Your task to perform on an android device: Is it going to rain this weekend? Image 0: 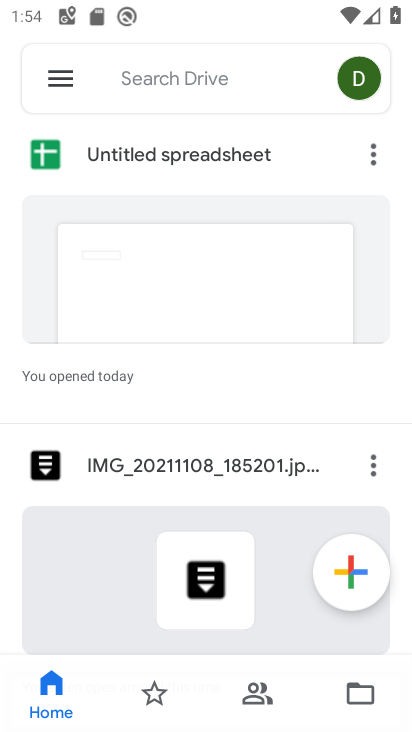
Step 0: press home button
Your task to perform on an android device: Is it going to rain this weekend? Image 1: 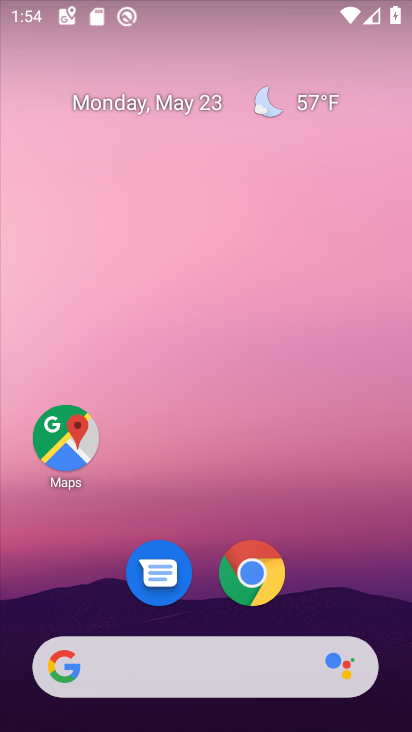
Step 1: drag from (313, 568) to (223, 24)
Your task to perform on an android device: Is it going to rain this weekend? Image 2: 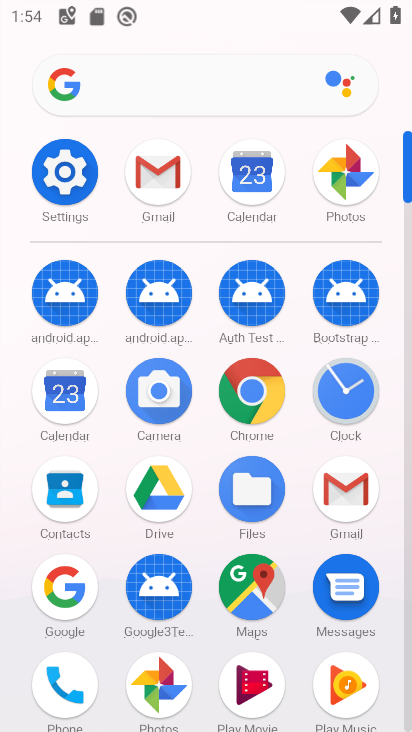
Step 2: click (230, 171)
Your task to perform on an android device: Is it going to rain this weekend? Image 3: 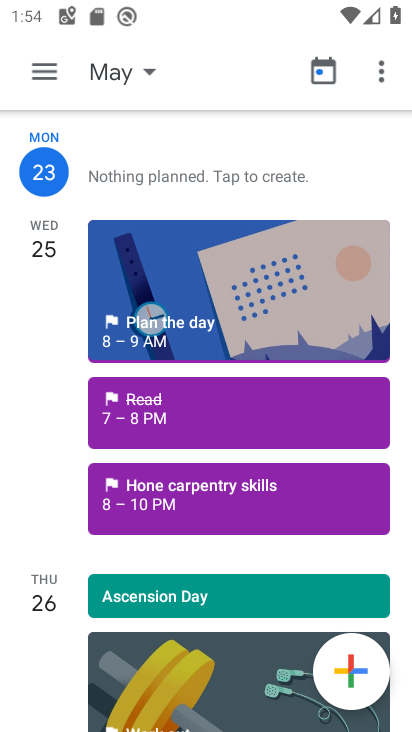
Step 3: click (40, 71)
Your task to perform on an android device: Is it going to rain this weekend? Image 4: 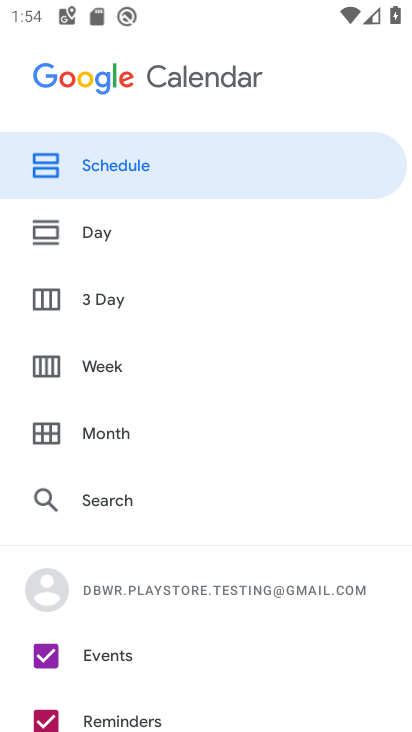
Step 4: click (111, 356)
Your task to perform on an android device: Is it going to rain this weekend? Image 5: 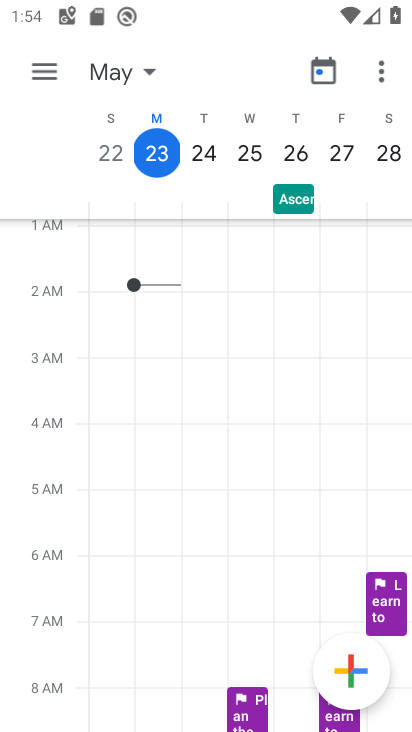
Step 5: task complete